Your task to perform on an android device: turn on location history Image 0: 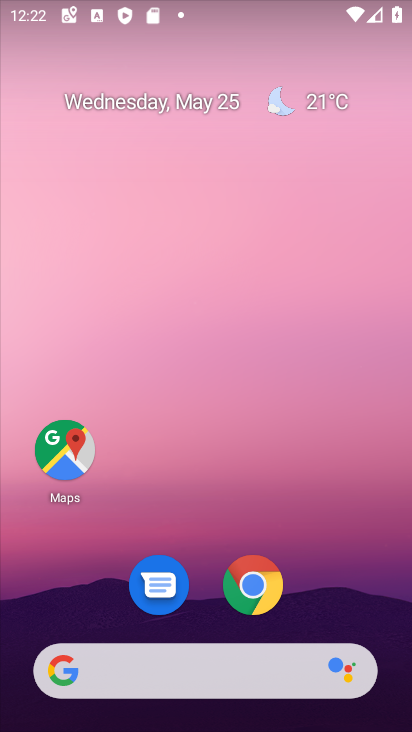
Step 0: drag from (227, 491) to (226, 0)
Your task to perform on an android device: turn on location history Image 1: 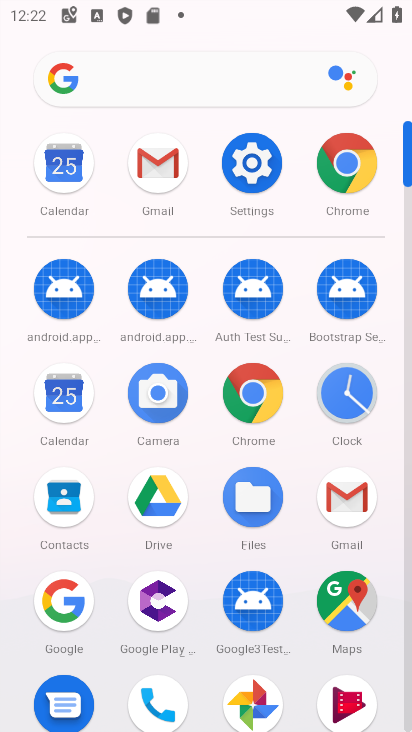
Step 1: click (255, 178)
Your task to perform on an android device: turn on location history Image 2: 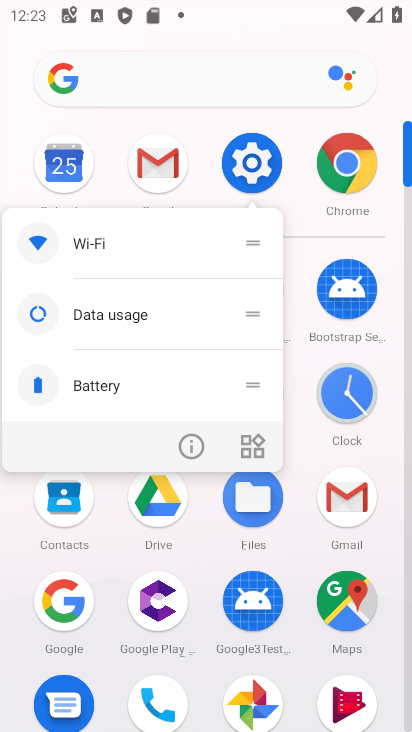
Step 2: click (255, 156)
Your task to perform on an android device: turn on location history Image 3: 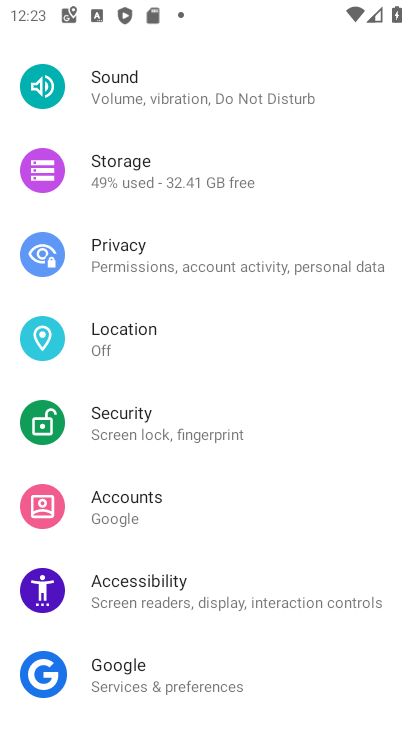
Step 3: click (180, 336)
Your task to perform on an android device: turn on location history Image 4: 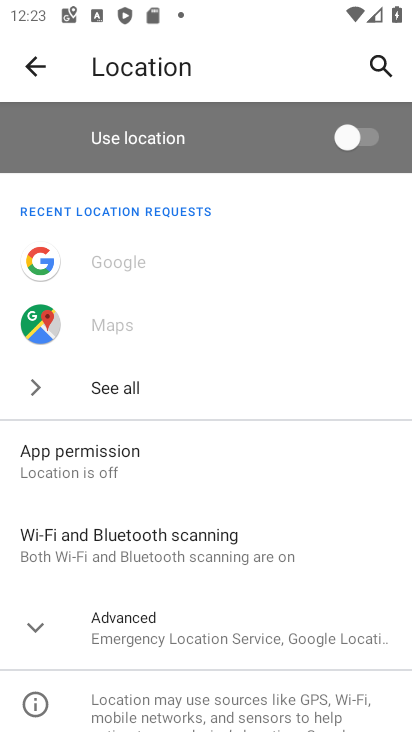
Step 4: click (34, 619)
Your task to perform on an android device: turn on location history Image 5: 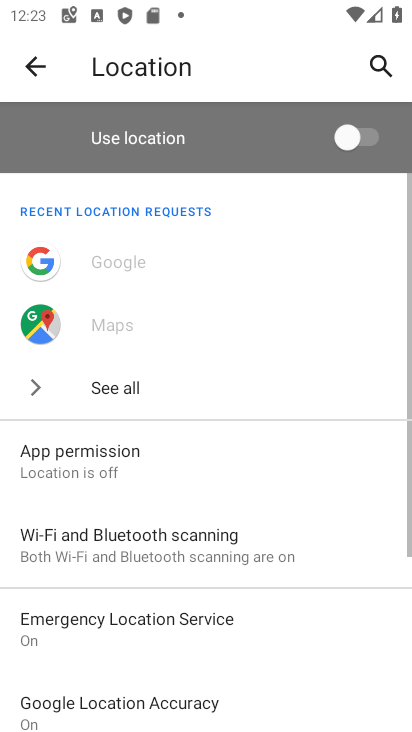
Step 5: drag from (223, 468) to (260, 115)
Your task to perform on an android device: turn on location history Image 6: 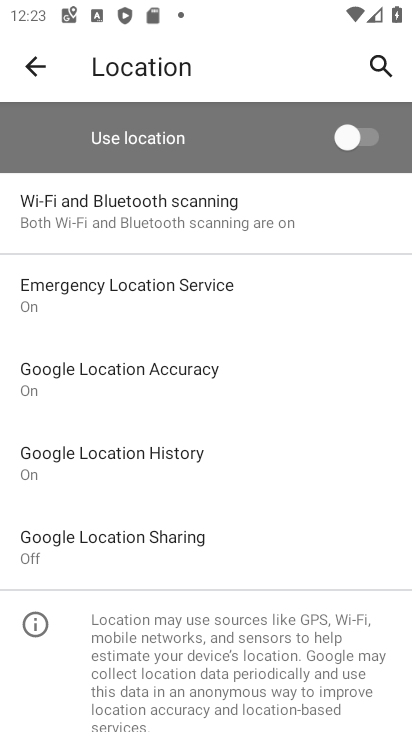
Step 6: click (142, 461)
Your task to perform on an android device: turn on location history Image 7: 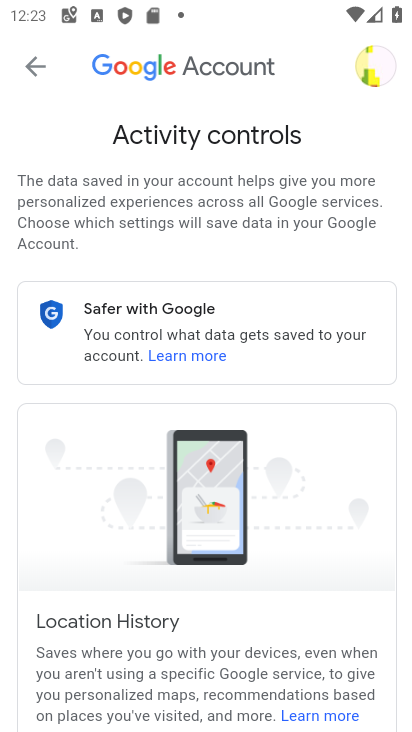
Step 7: task complete